Your task to perform on an android device: change the clock display to digital Image 0: 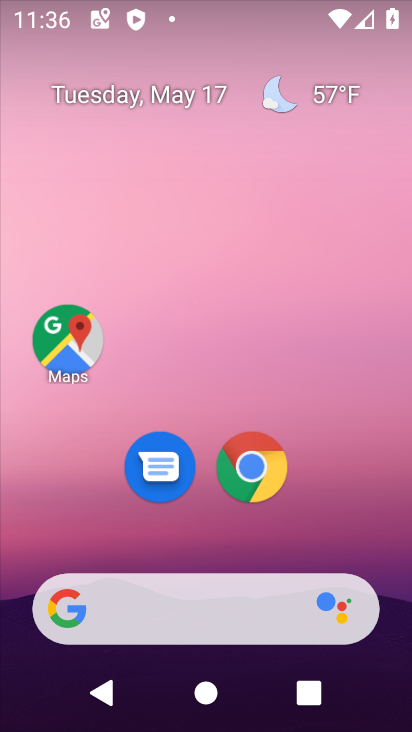
Step 0: drag from (229, 646) to (192, 144)
Your task to perform on an android device: change the clock display to digital Image 1: 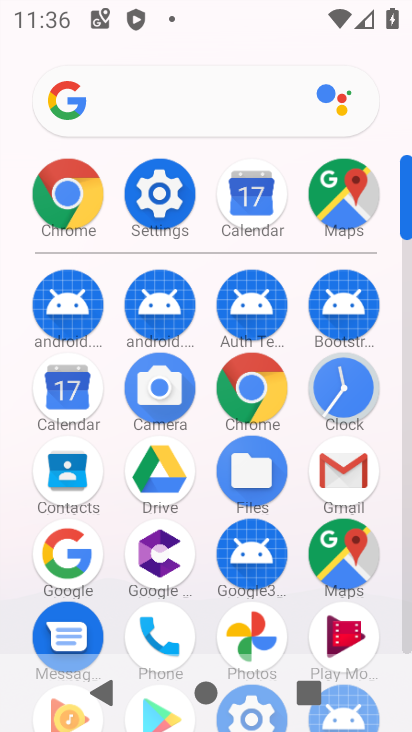
Step 1: click (157, 189)
Your task to perform on an android device: change the clock display to digital Image 2: 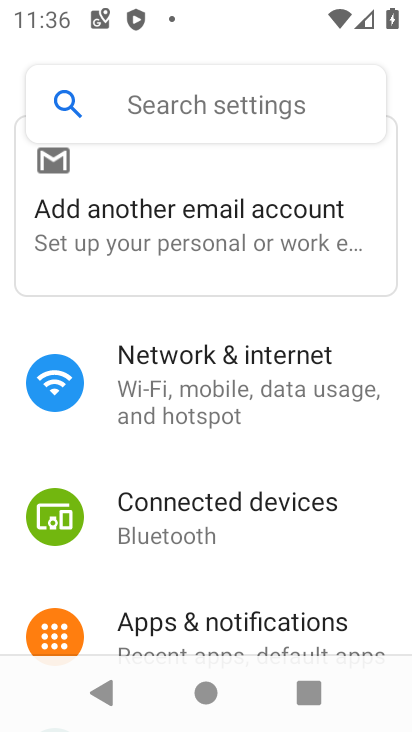
Step 2: press home button
Your task to perform on an android device: change the clock display to digital Image 3: 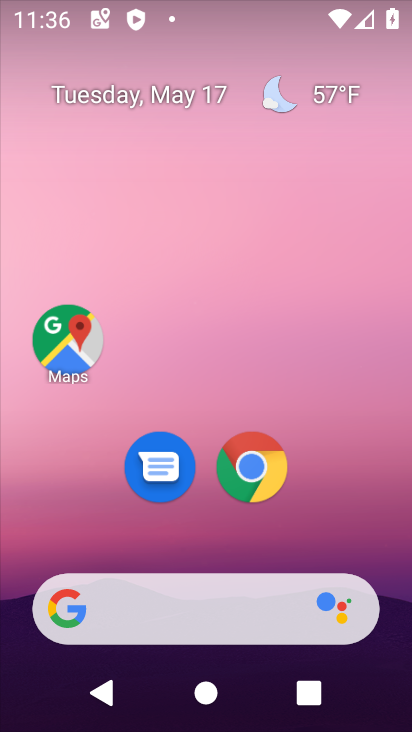
Step 3: drag from (237, 647) to (337, 175)
Your task to perform on an android device: change the clock display to digital Image 4: 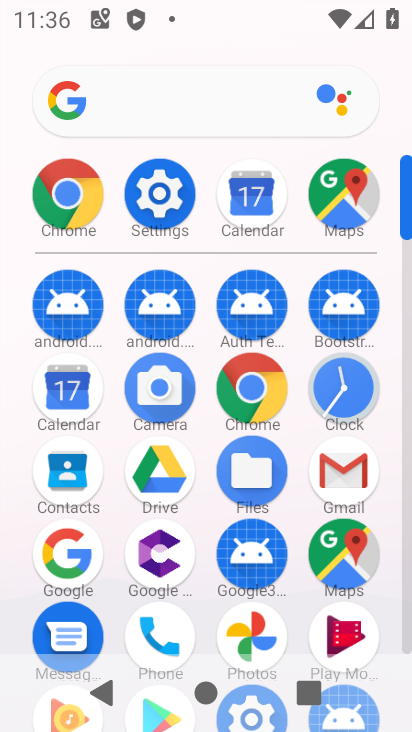
Step 4: click (341, 364)
Your task to perform on an android device: change the clock display to digital Image 5: 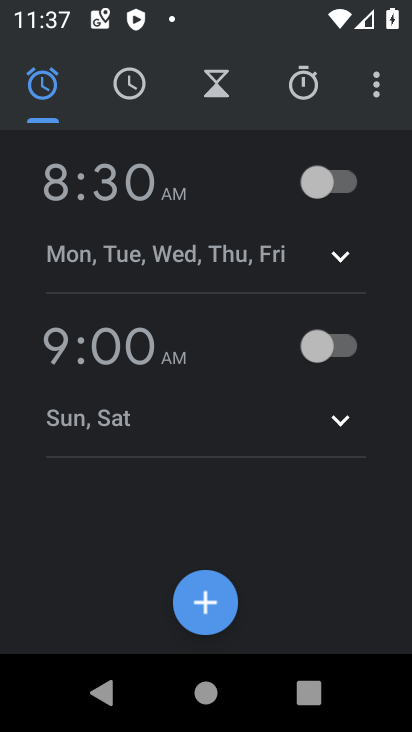
Step 5: click (375, 111)
Your task to perform on an android device: change the clock display to digital Image 6: 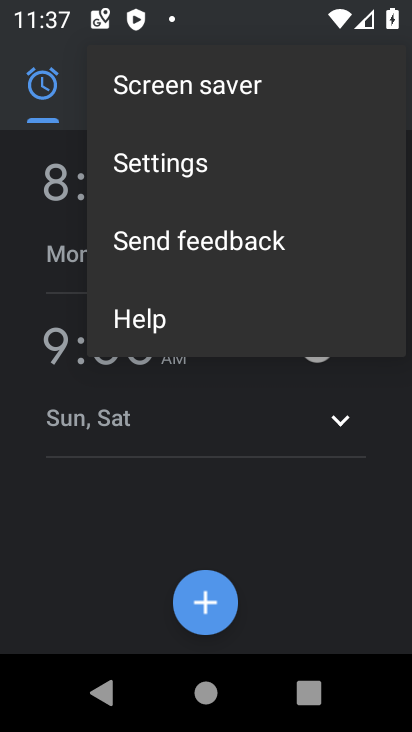
Step 6: click (185, 169)
Your task to perform on an android device: change the clock display to digital Image 7: 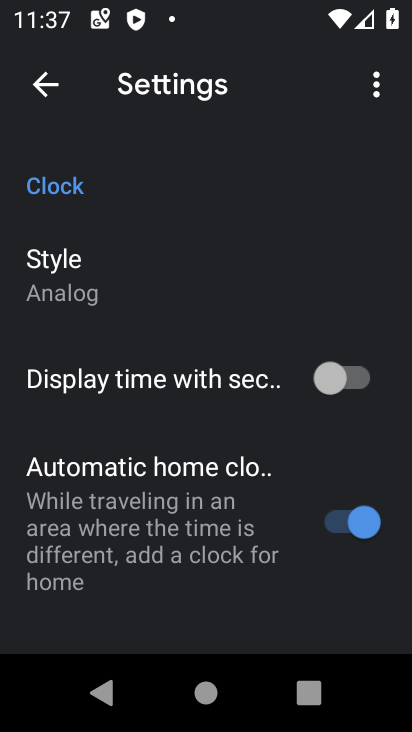
Step 7: click (56, 289)
Your task to perform on an android device: change the clock display to digital Image 8: 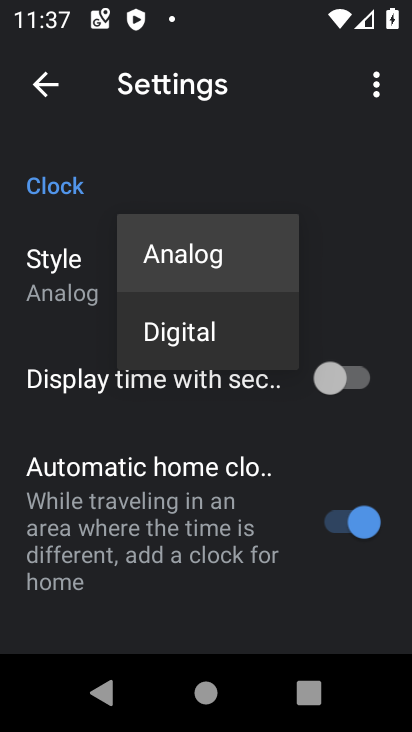
Step 8: click (170, 336)
Your task to perform on an android device: change the clock display to digital Image 9: 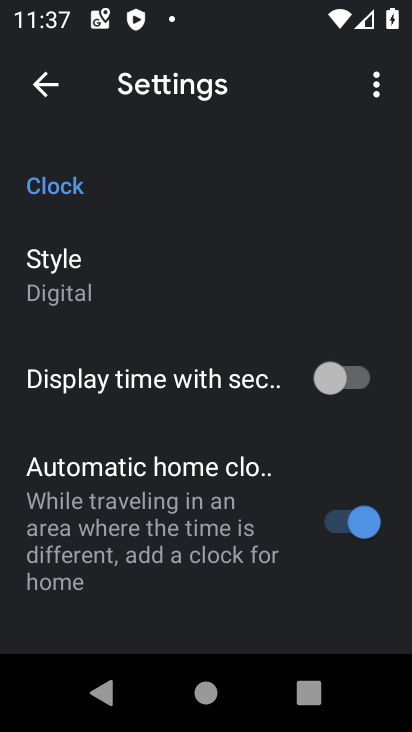
Step 9: task complete